Your task to perform on an android device: Do I have any events tomorrow? Image 0: 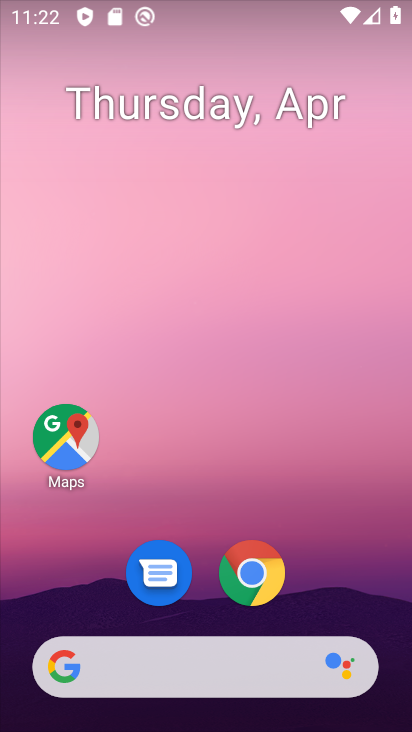
Step 0: drag from (361, 545) to (311, 32)
Your task to perform on an android device: Do I have any events tomorrow? Image 1: 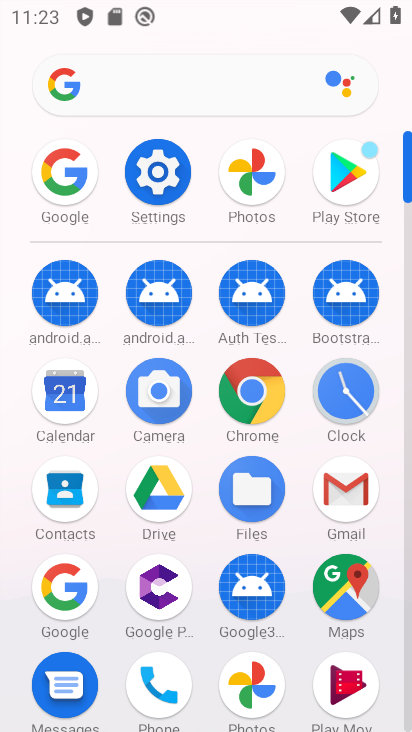
Step 1: click (70, 410)
Your task to perform on an android device: Do I have any events tomorrow? Image 2: 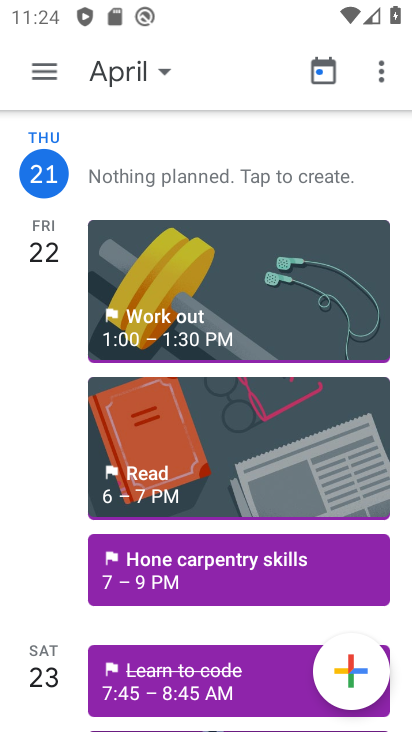
Step 2: task complete